Your task to perform on an android device: Open Amazon Image 0: 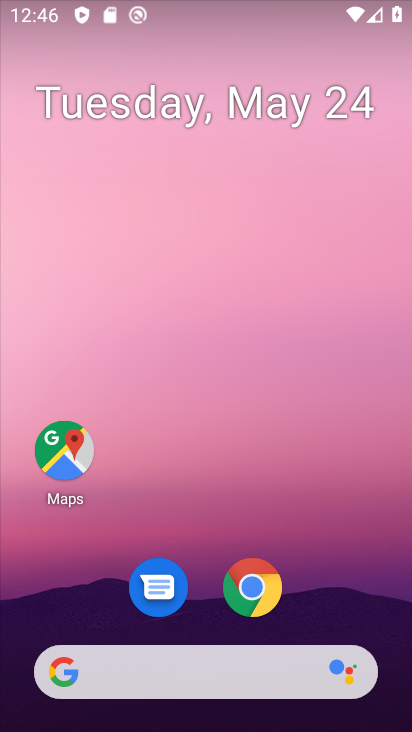
Step 0: click (243, 607)
Your task to perform on an android device: Open Amazon Image 1: 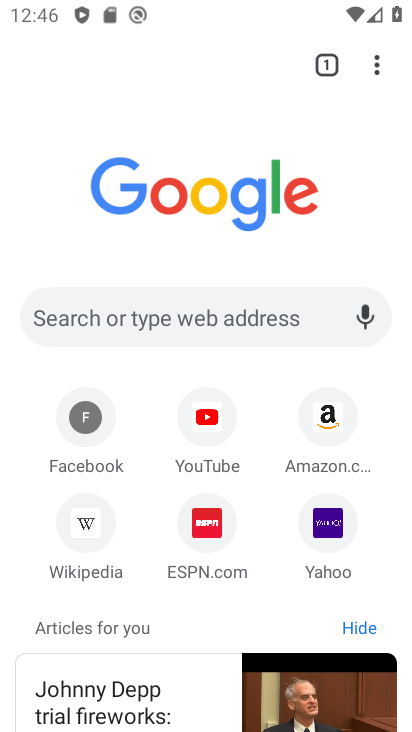
Step 1: click (323, 400)
Your task to perform on an android device: Open Amazon Image 2: 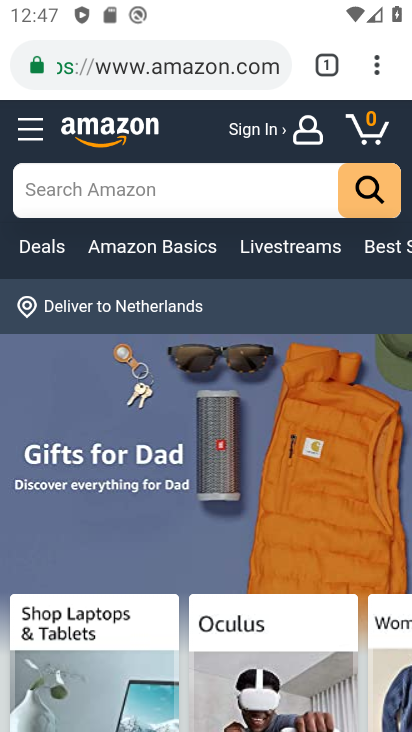
Step 2: task complete